Your task to perform on an android device: create a new album in the google photos Image 0: 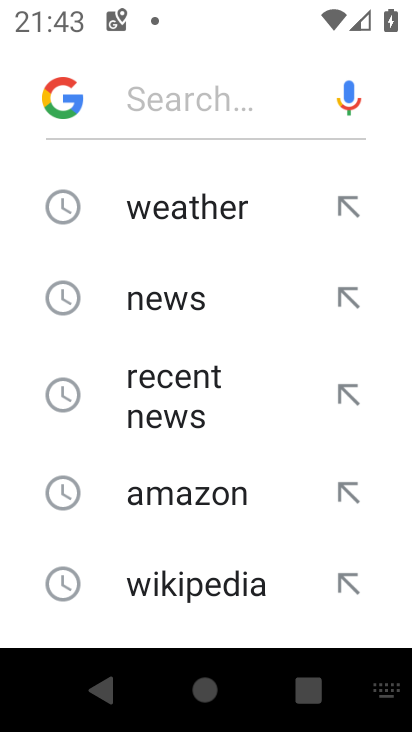
Step 0: press back button
Your task to perform on an android device: create a new album in the google photos Image 1: 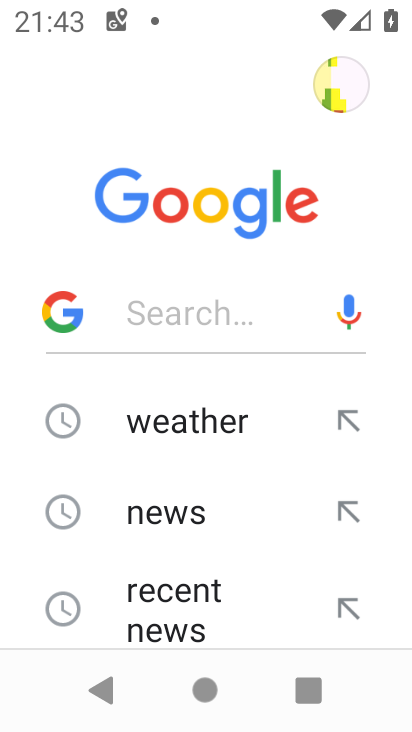
Step 1: press back button
Your task to perform on an android device: create a new album in the google photos Image 2: 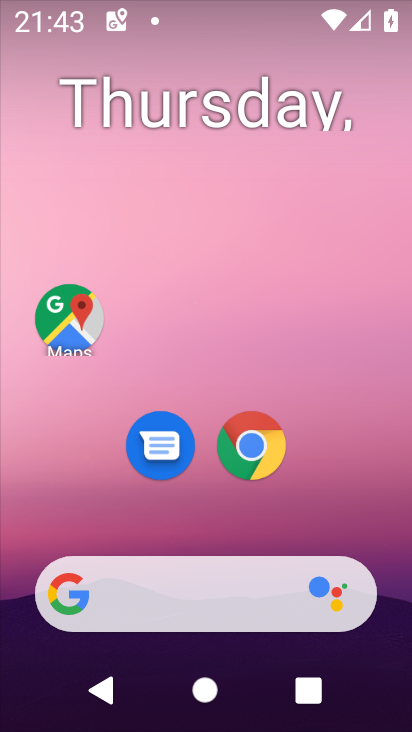
Step 2: press back button
Your task to perform on an android device: create a new album in the google photos Image 3: 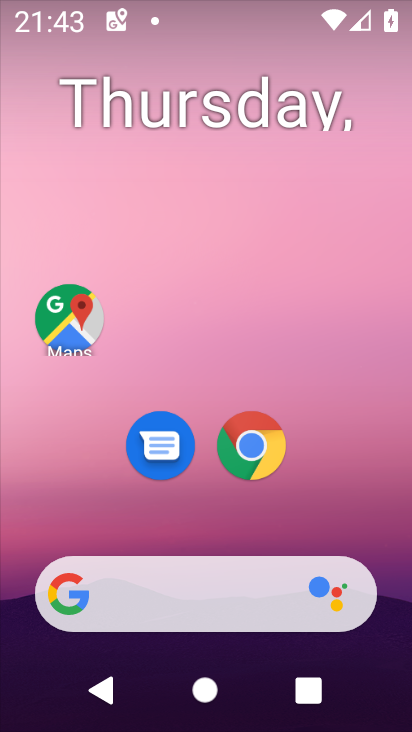
Step 3: drag from (13, 661) to (308, 223)
Your task to perform on an android device: create a new album in the google photos Image 4: 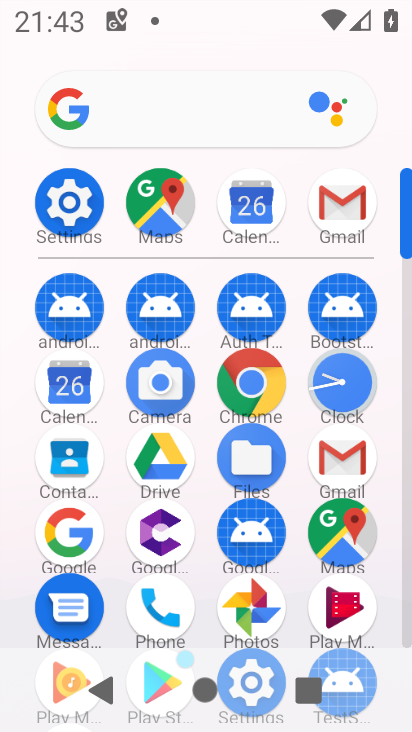
Step 4: click (235, 619)
Your task to perform on an android device: create a new album in the google photos Image 5: 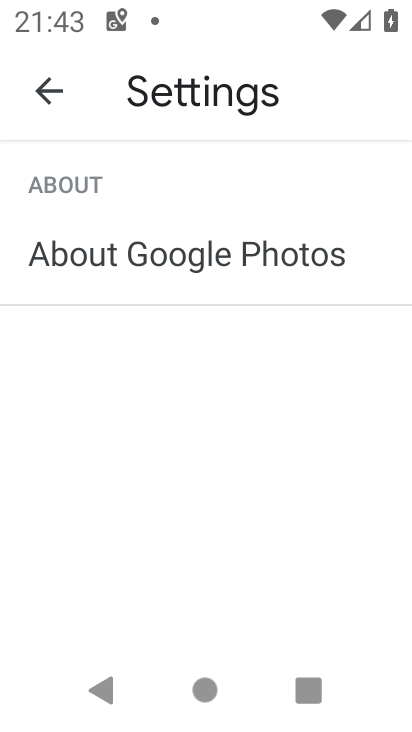
Step 5: click (43, 92)
Your task to perform on an android device: create a new album in the google photos Image 6: 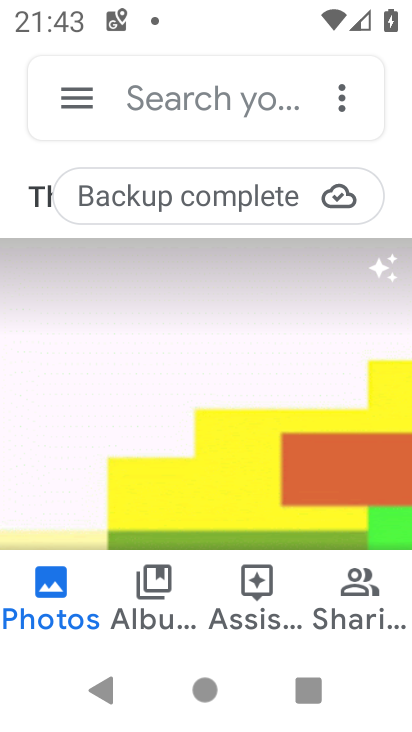
Step 6: click (337, 102)
Your task to perform on an android device: create a new album in the google photos Image 7: 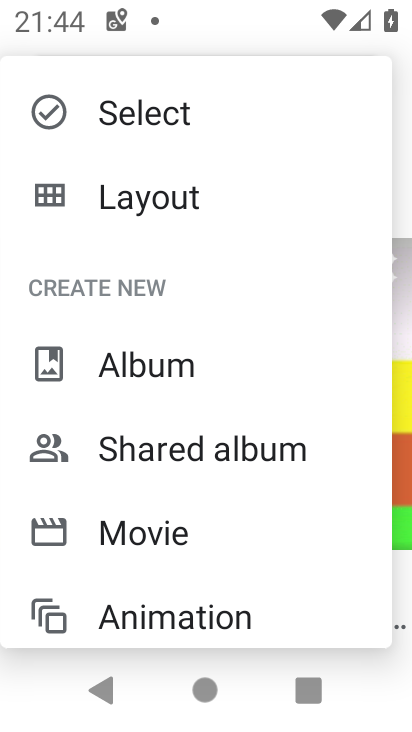
Step 7: click (106, 355)
Your task to perform on an android device: create a new album in the google photos Image 8: 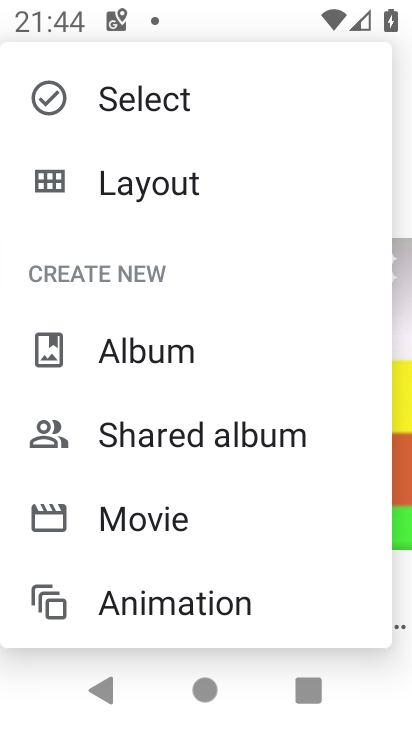
Step 8: click (94, 357)
Your task to perform on an android device: create a new album in the google photos Image 9: 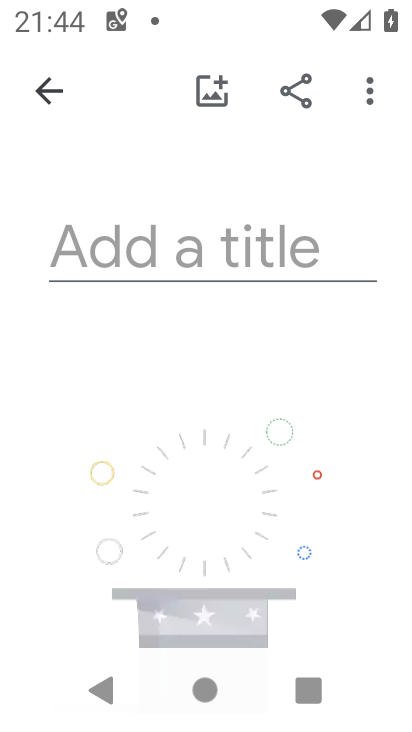
Step 9: click (200, 253)
Your task to perform on an android device: create a new album in the google photos Image 10: 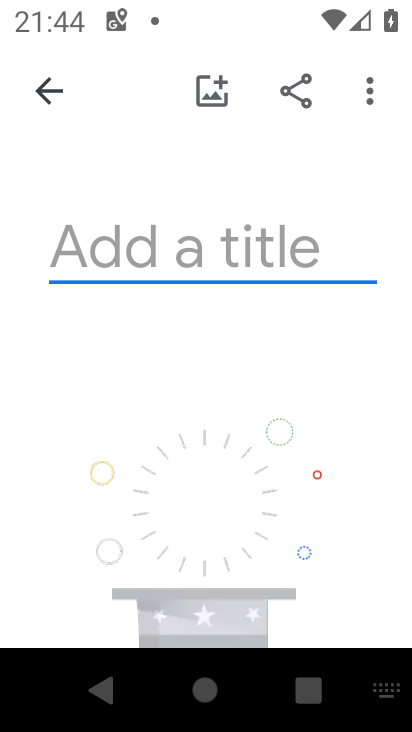
Step 10: type "cdfreds"
Your task to perform on an android device: create a new album in the google photos Image 11: 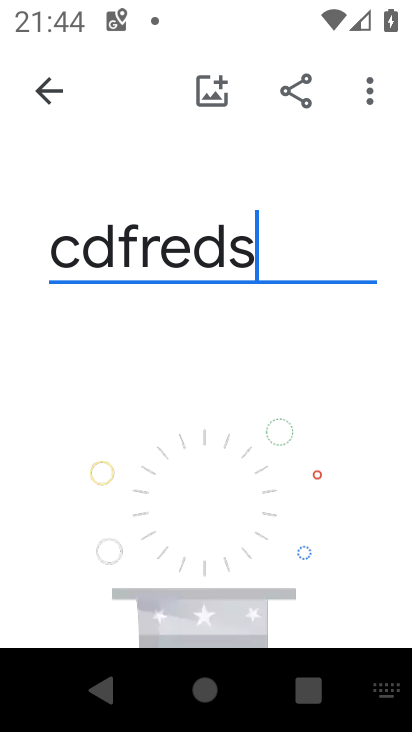
Step 11: type ""
Your task to perform on an android device: create a new album in the google photos Image 12: 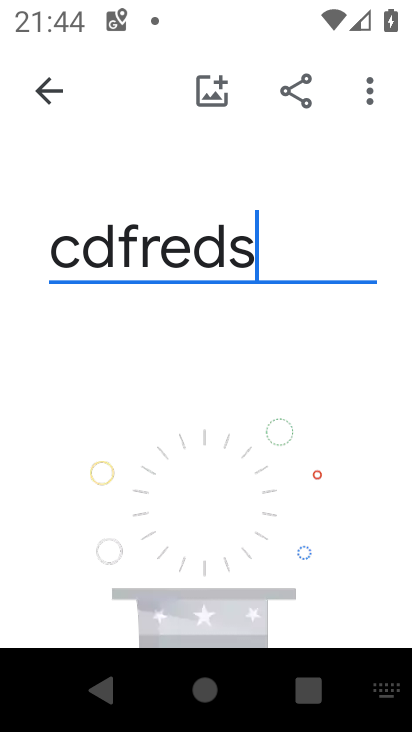
Step 12: click (207, 99)
Your task to perform on an android device: create a new album in the google photos Image 13: 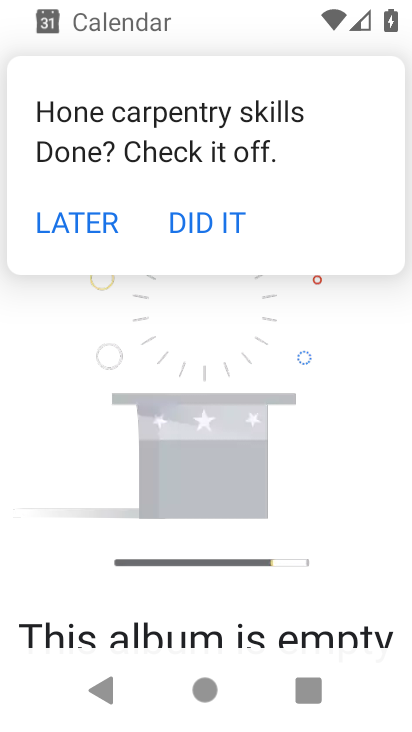
Step 13: click (102, 229)
Your task to perform on an android device: create a new album in the google photos Image 14: 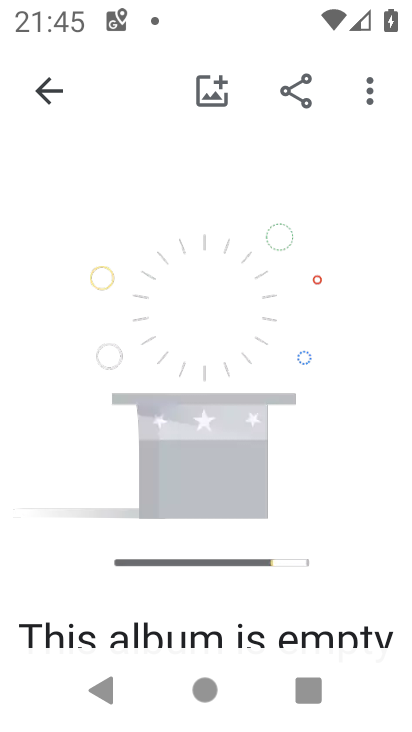
Step 14: click (210, 98)
Your task to perform on an android device: create a new album in the google photos Image 15: 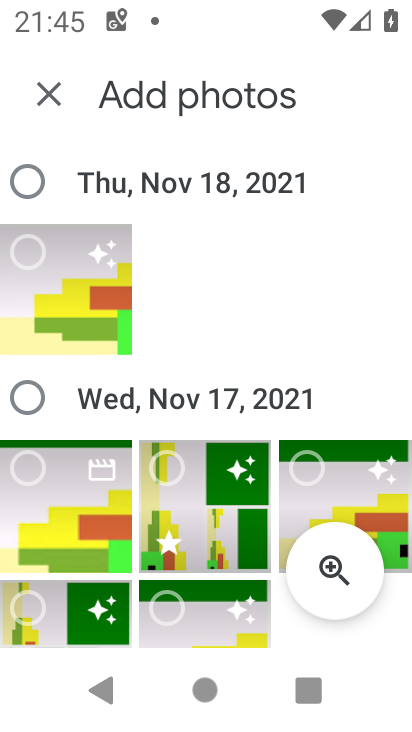
Step 15: click (72, 268)
Your task to perform on an android device: create a new album in the google photos Image 16: 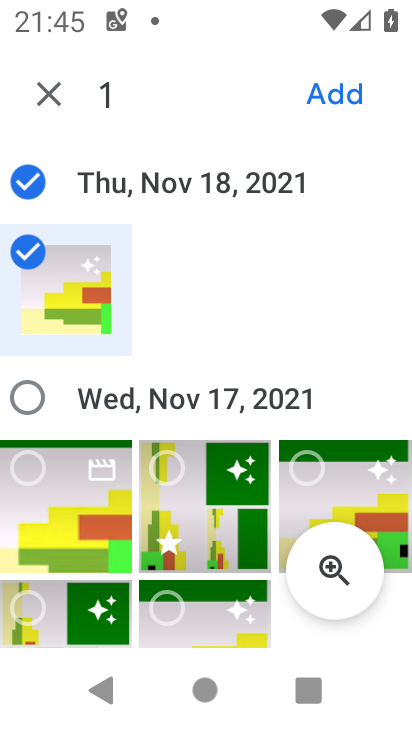
Step 16: click (351, 92)
Your task to perform on an android device: create a new album in the google photos Image 17: 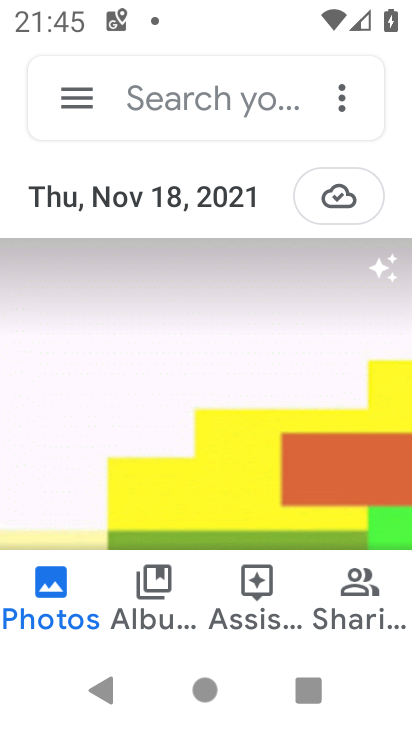
Step 17: task complete